Your task to perform on an android device: turn notification dots off Image 0: 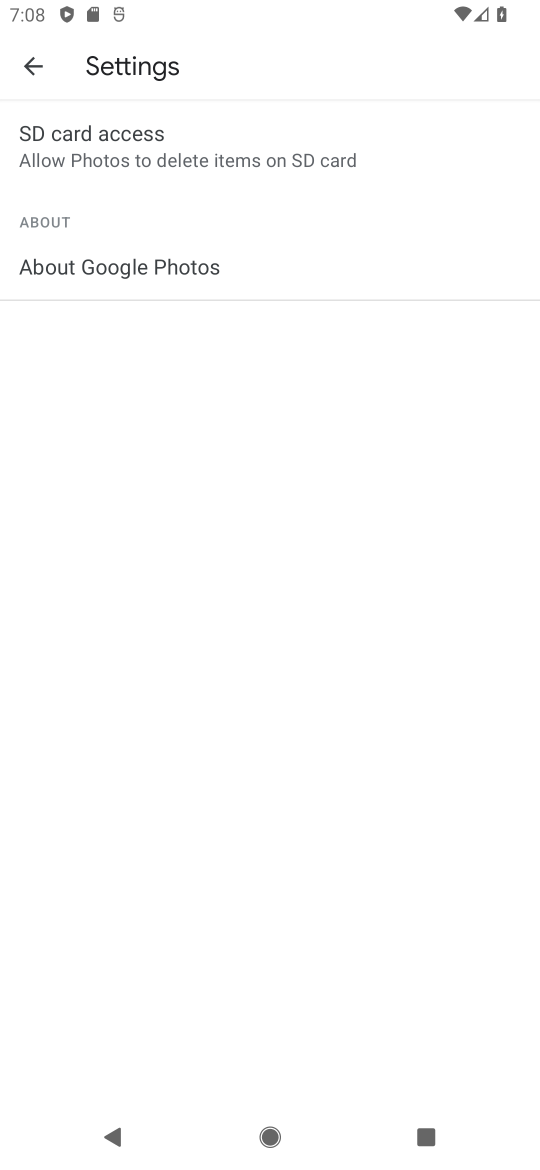
Step 0: press home button
Your task to perform on an android device: turn notification dots off Image 1: 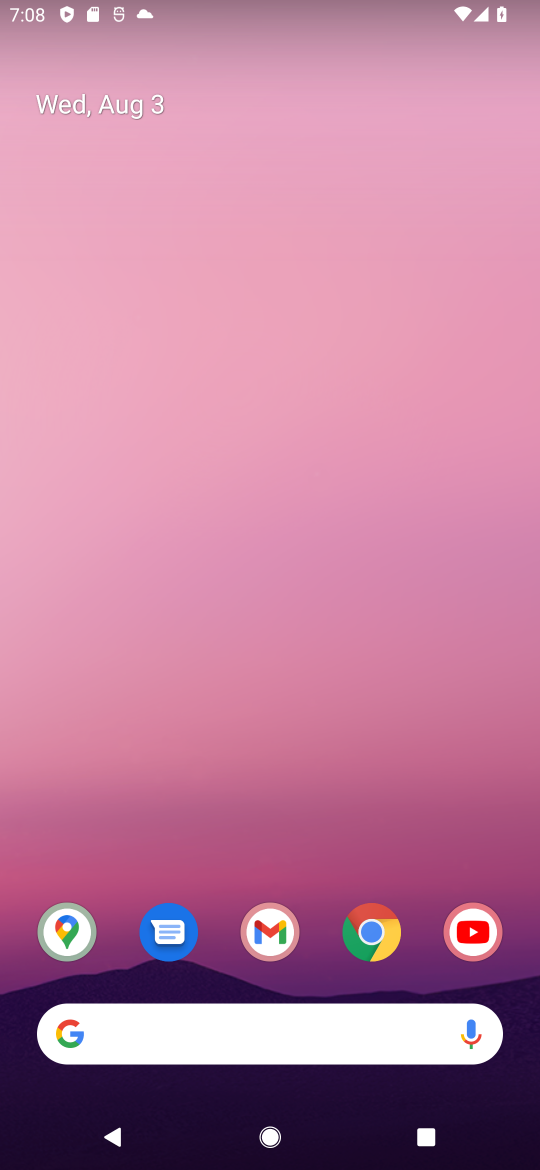
Step 1: drag from (208, 1117) to (64, 199)
Your task to perform on an android device: turn notification dots off Image 2: 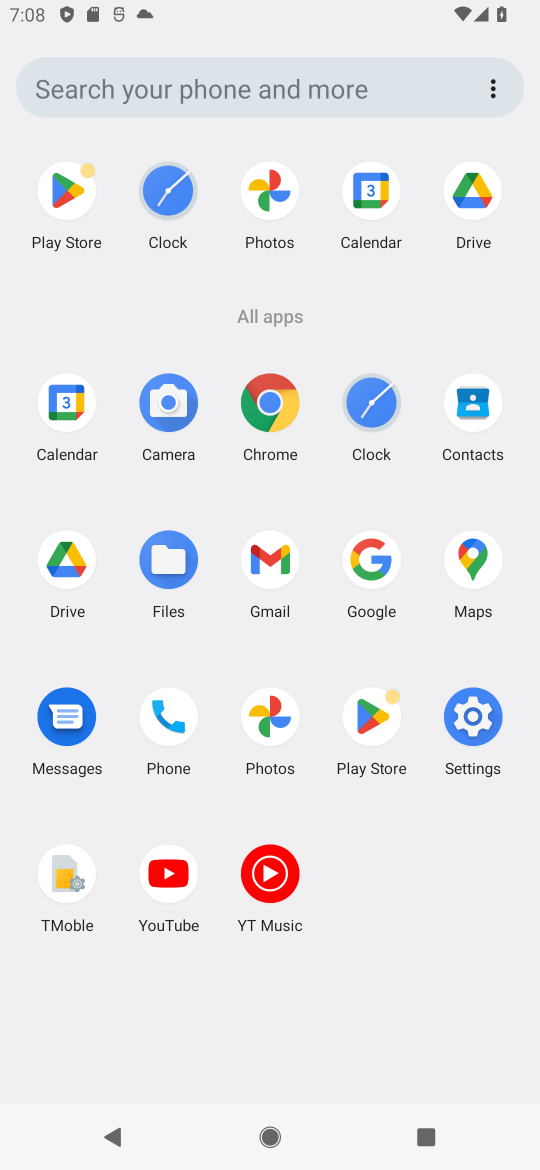
Step 2: click (459, 714)
Your task to perform on an android device: turn notification dots off Image 3: 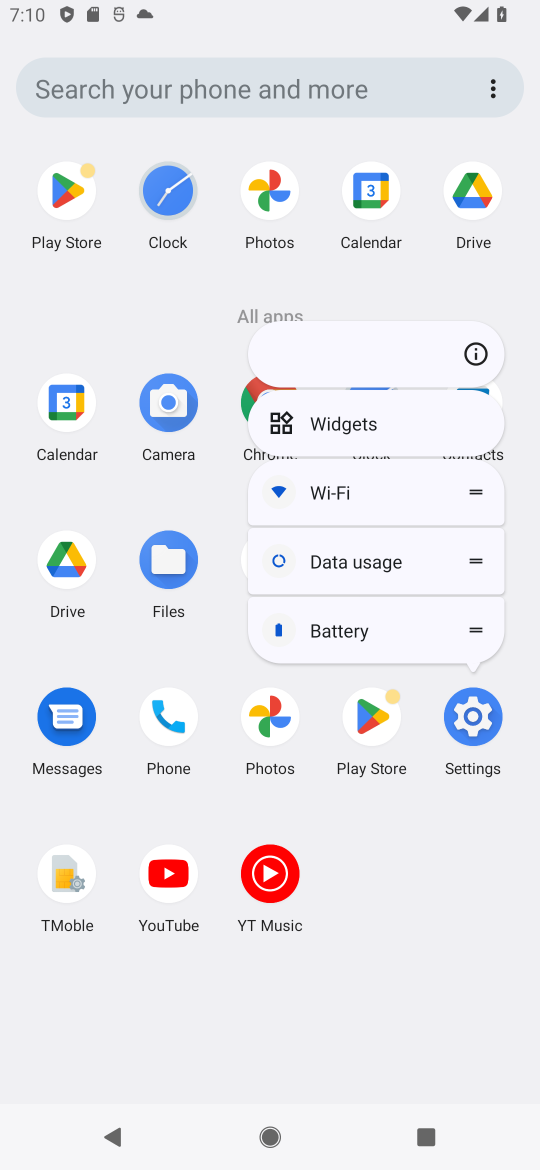
Step 3: click (476, 729)
Your task to perform on an android device: turn notification dots off Image 4: 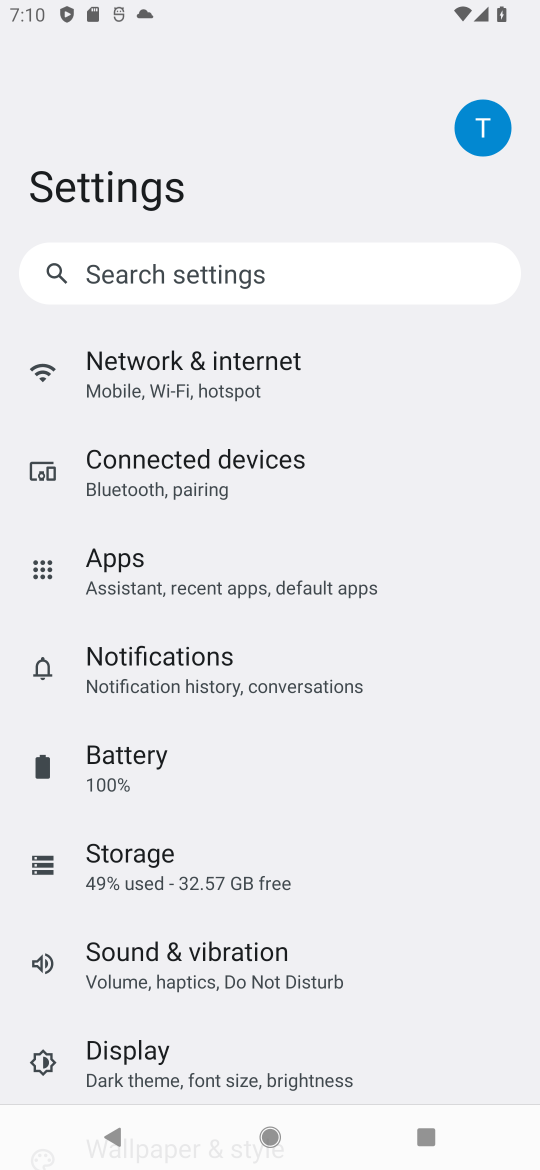
Step 4: click (231, 695)
Your task to perform on an android device: turn notification dots off Image 5: 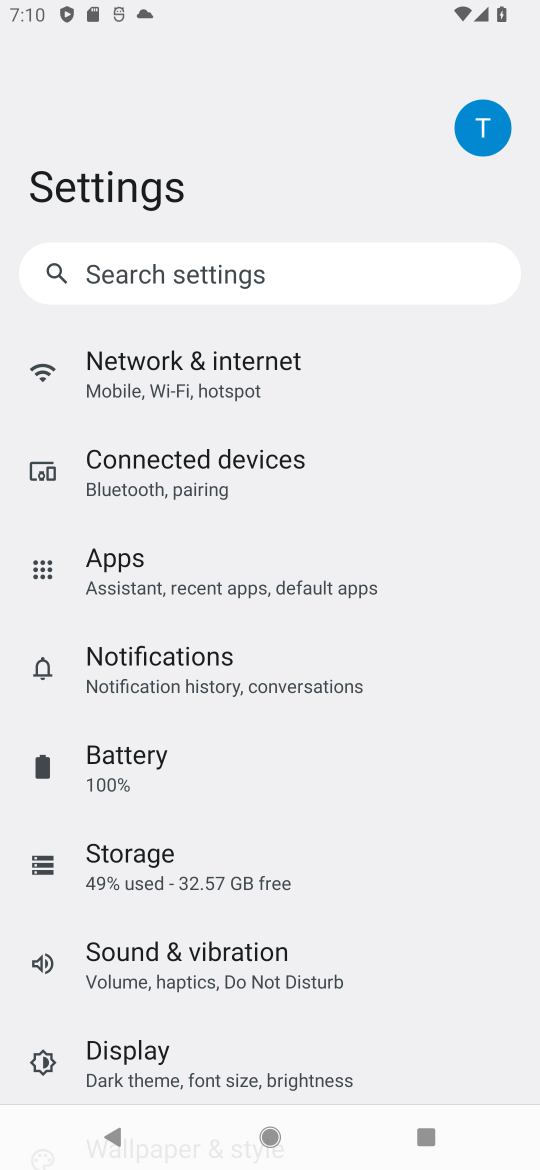
Step 5: click (231, 695)
Your task to perform on an android device: turn notification dots off Image 6: 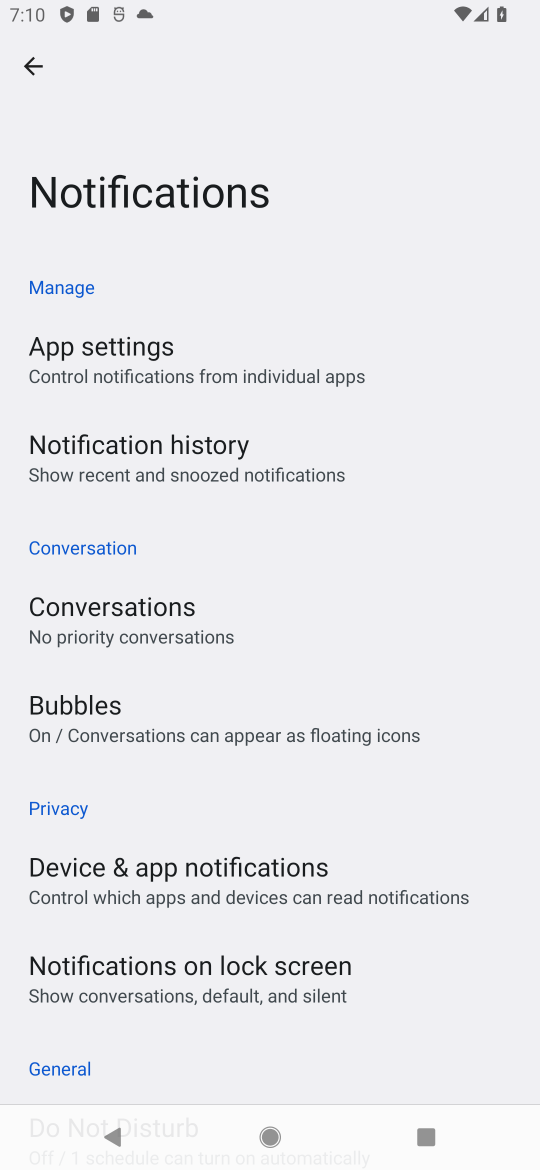
Step 6: drag from (417, 1008) to (325, 6)
Your task to perform on an android device: turn notification dots off Image 7: 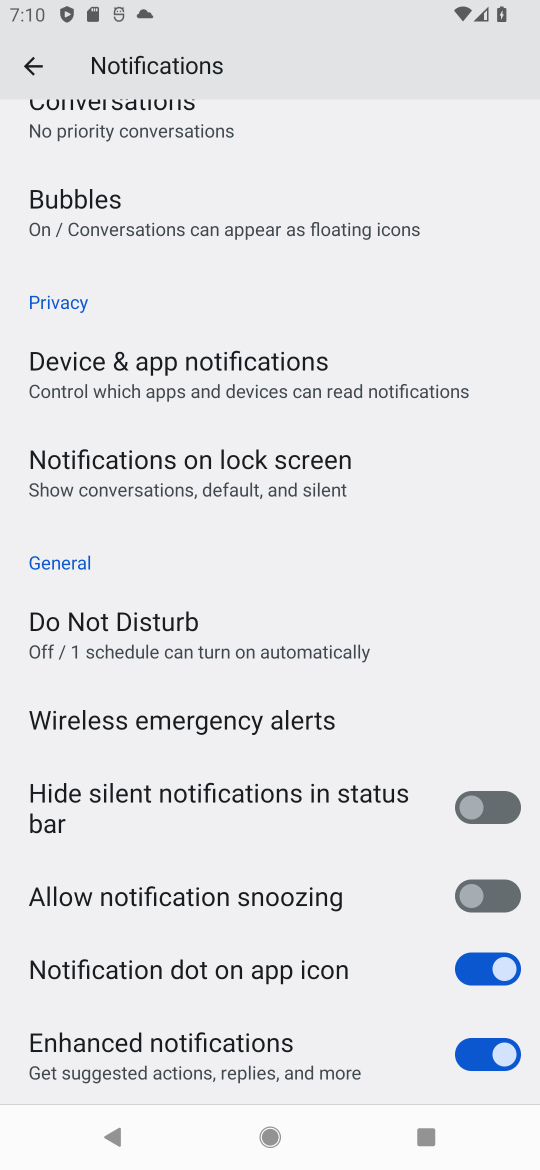
Step 7: click (480, 976)
Your task to perform on an android device: turn notification dots off Image 8: 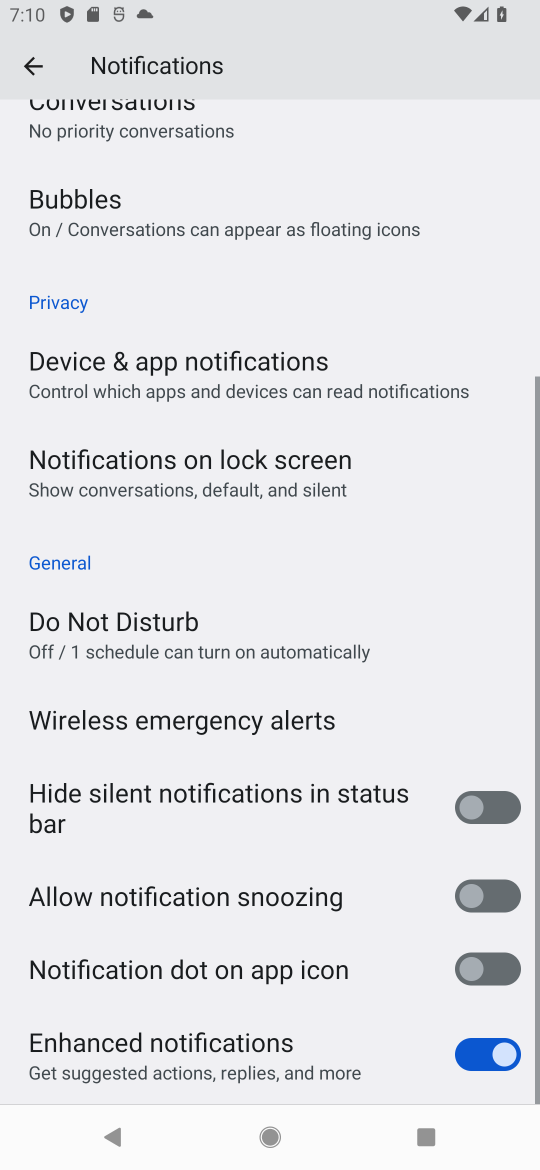
Step 8: task complete